Your task to perform on an android device: check google app version Image 0: 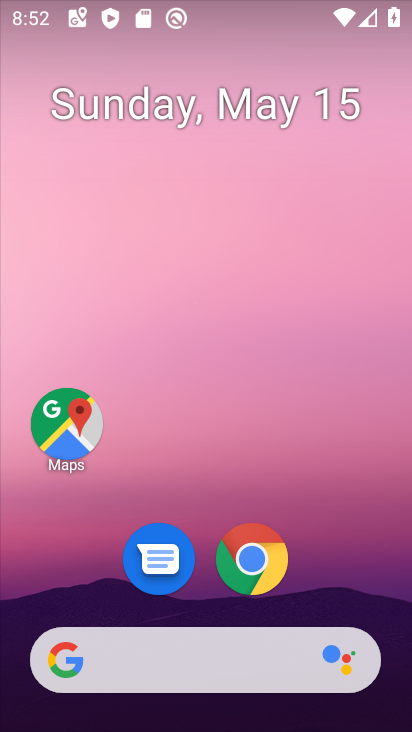
Step 0: click (276, 574)
Your task to perform on an android device: check google app version Image 1: 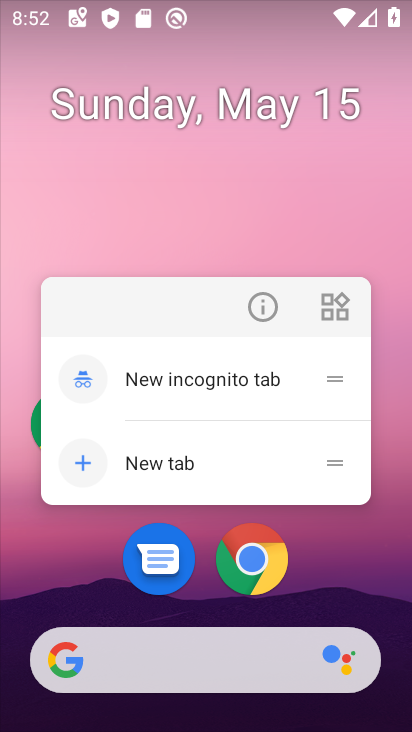
Step 1: click (258, 314)
Your task to perform on an android device: check google app version Image 2: 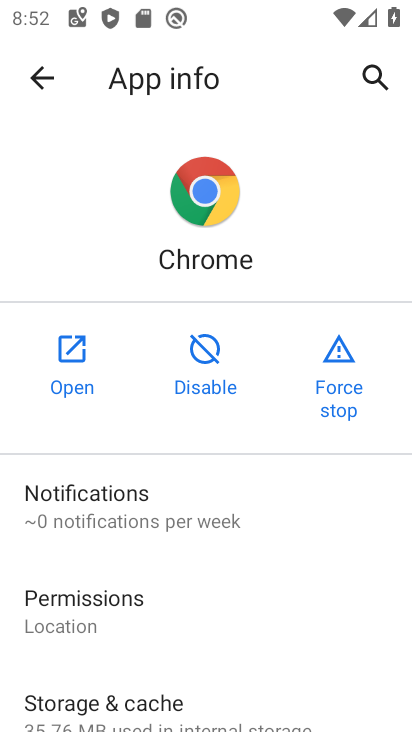
Step 2: drag from (211, 614) to (254, 245)
Your task to perform on an android device: check google app version Image 3: 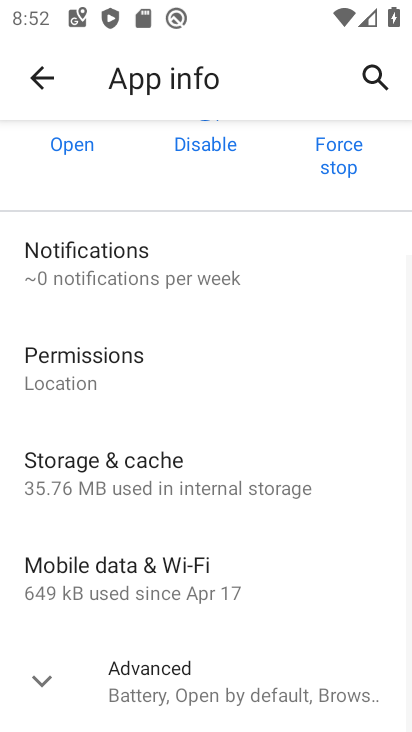
Step 3: drag from (239, 564) to (248, 343)
Your task to perform on an android device: check google app version Image 4: 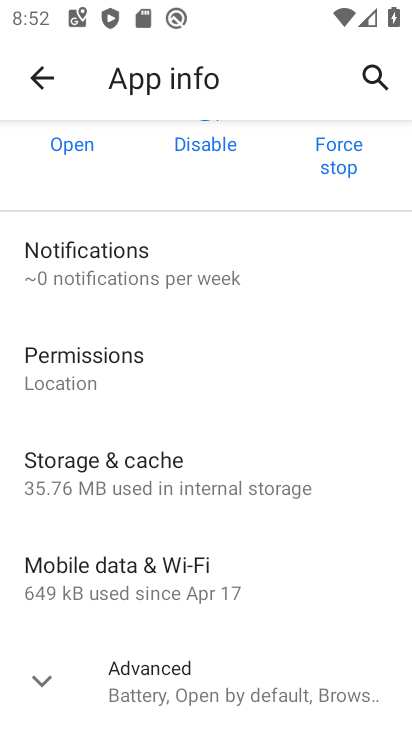
Step 4: click (257, 659)
Your task to perform on an android device: check google app version Image 5: 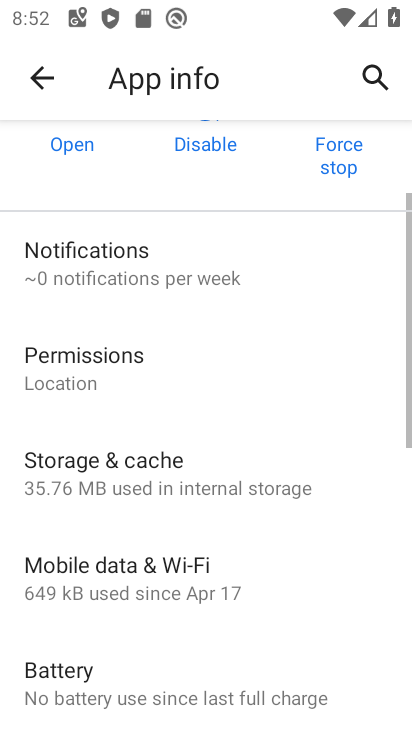
Step 5: task complete